Your task to perform on an android device: Add logitech g pro to the cart on ebay.com Image 0: 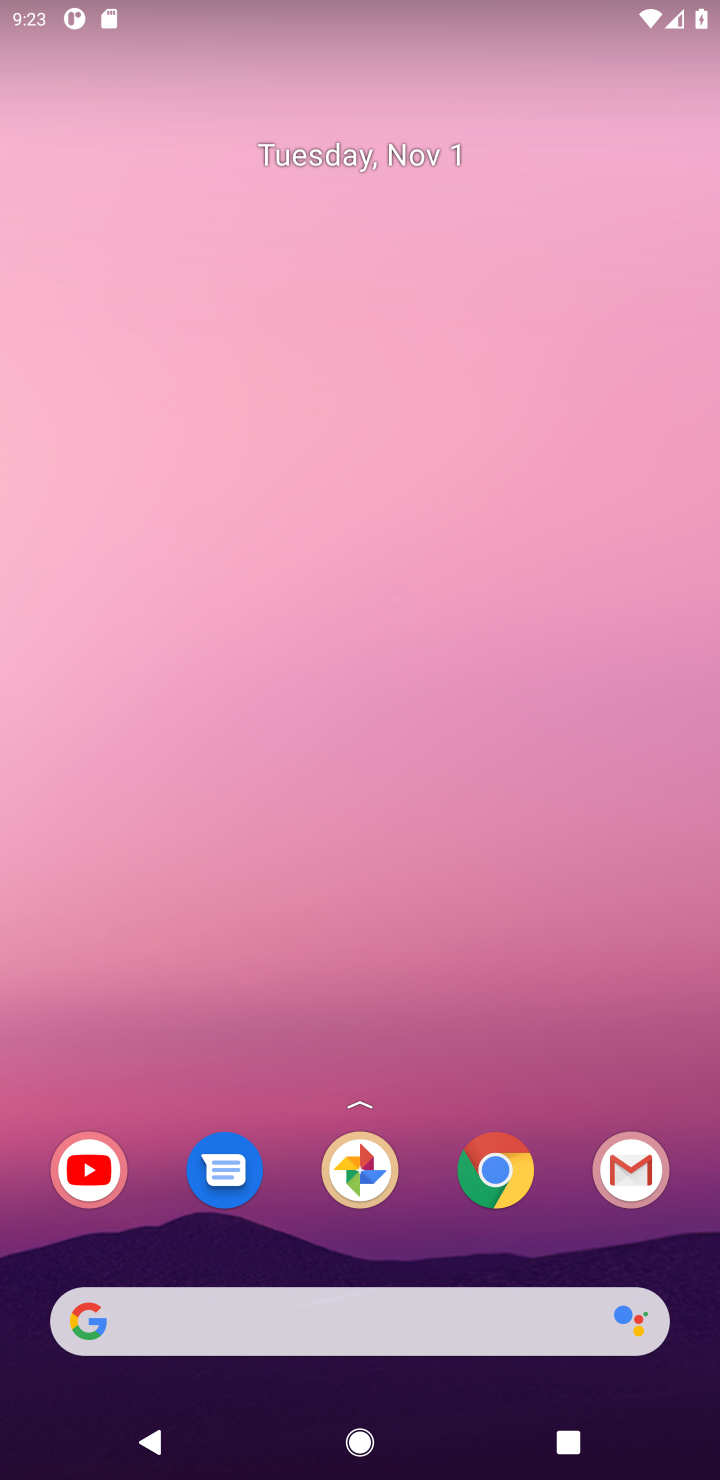
Step 0: click (487, 1194)
Your task to perform on an android device: Add logitech g pro to the cart on ebay.com Image 1: 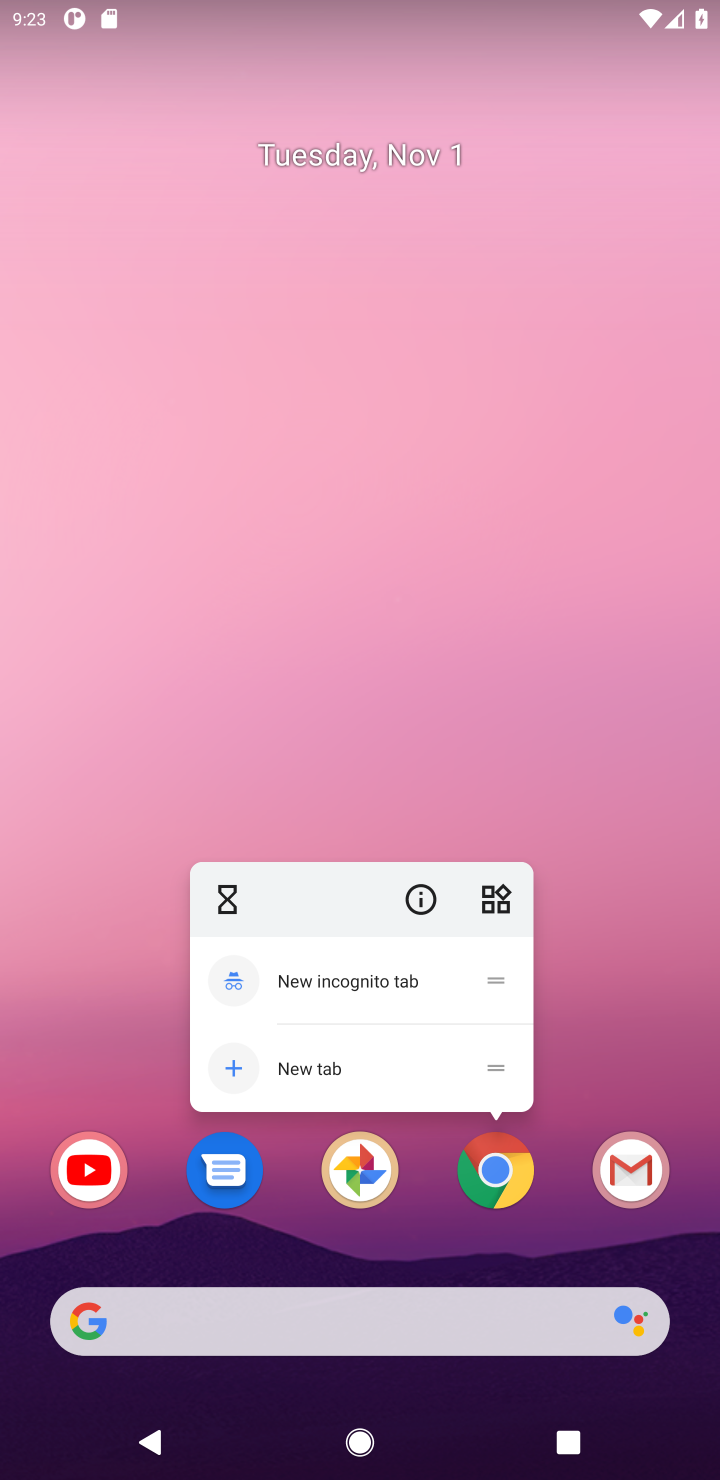
Step 1: click (513, 1196)
Your task to perform on an android device: Add logitech g pro to the cart on ebay.com Image 2: 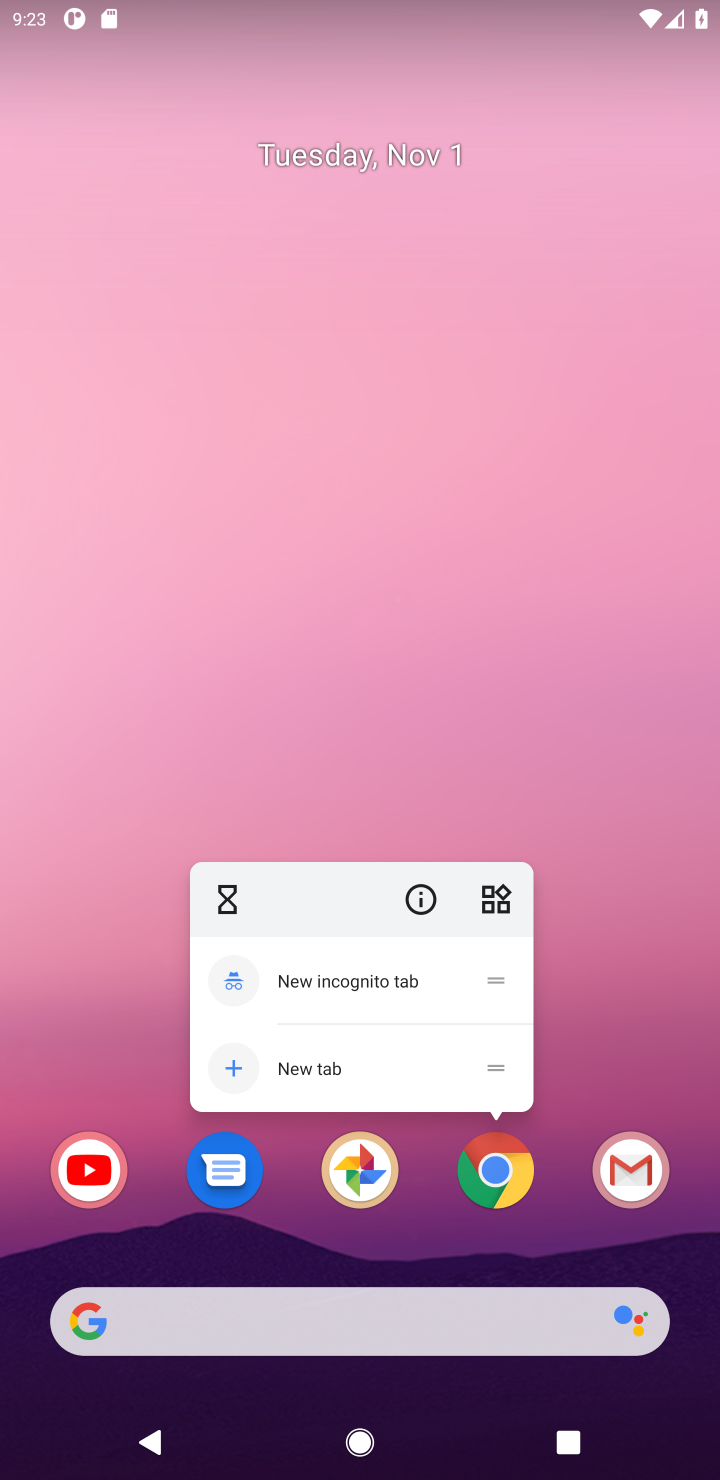
Step 2: click (496, 1190)
Your task to perform on an android device: Add logitech g pro to the cart on ebay.com Image 3: 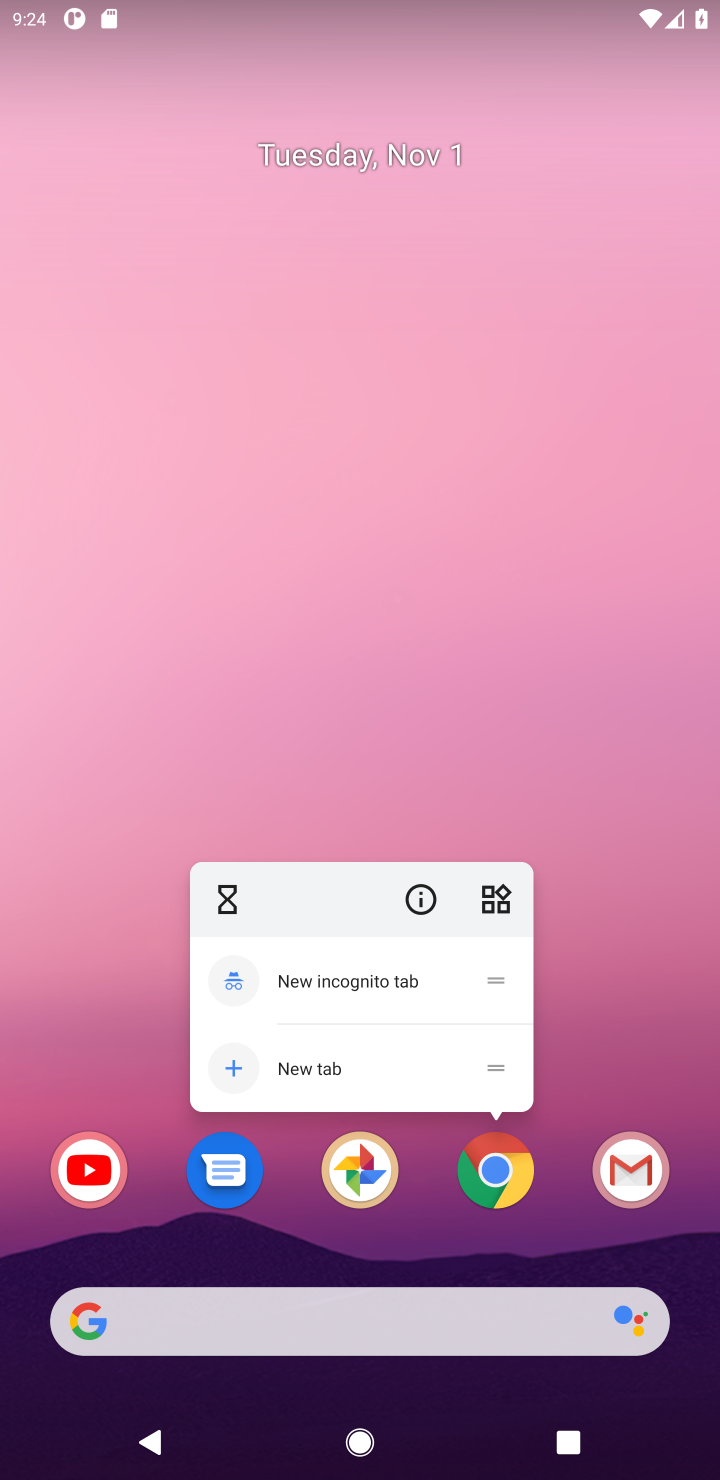
Step 3: click (497, 1172)
Your task to perform on an android device: Add logitech g pro to the cart on ebay.com Image 4: 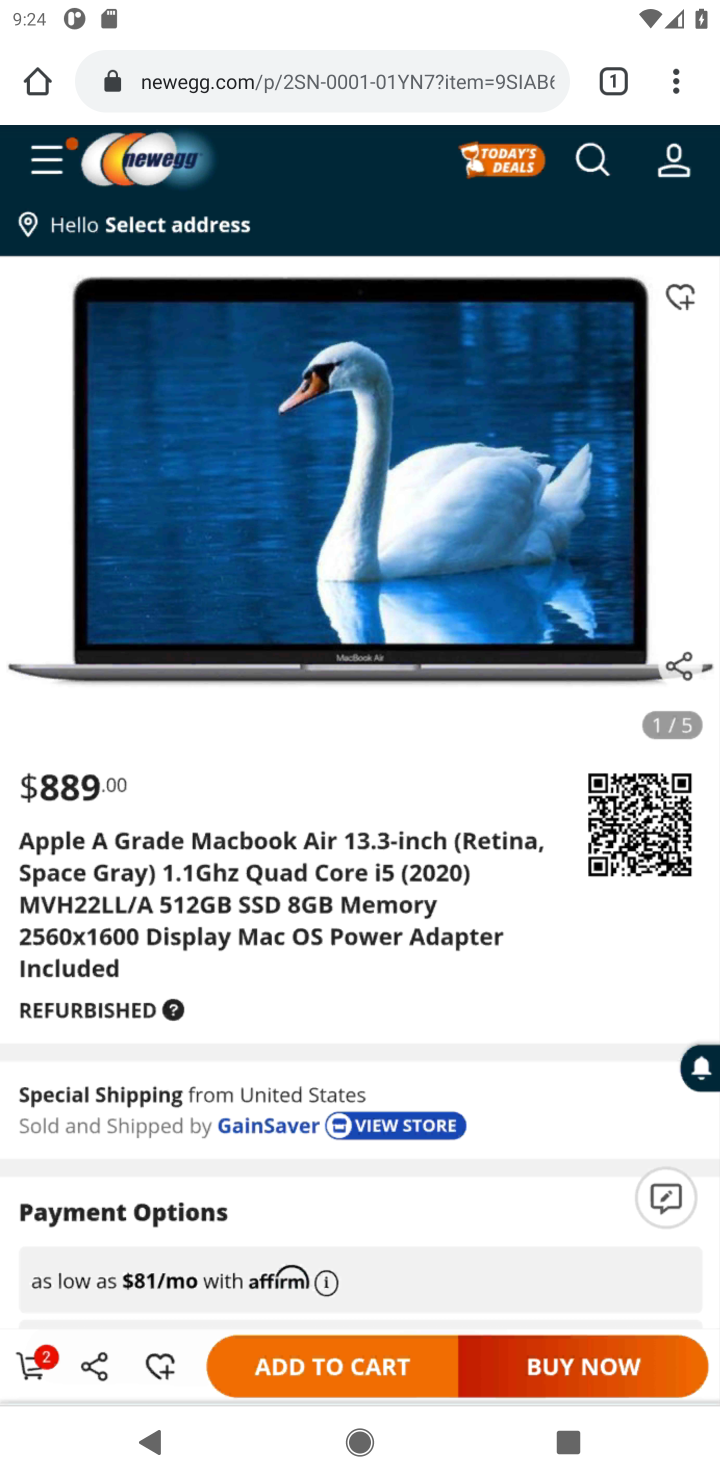
Step 4: click (332, 81)
Your task to perform on an android device: Add logitech g pro to the cart on ebay.com Image 5: 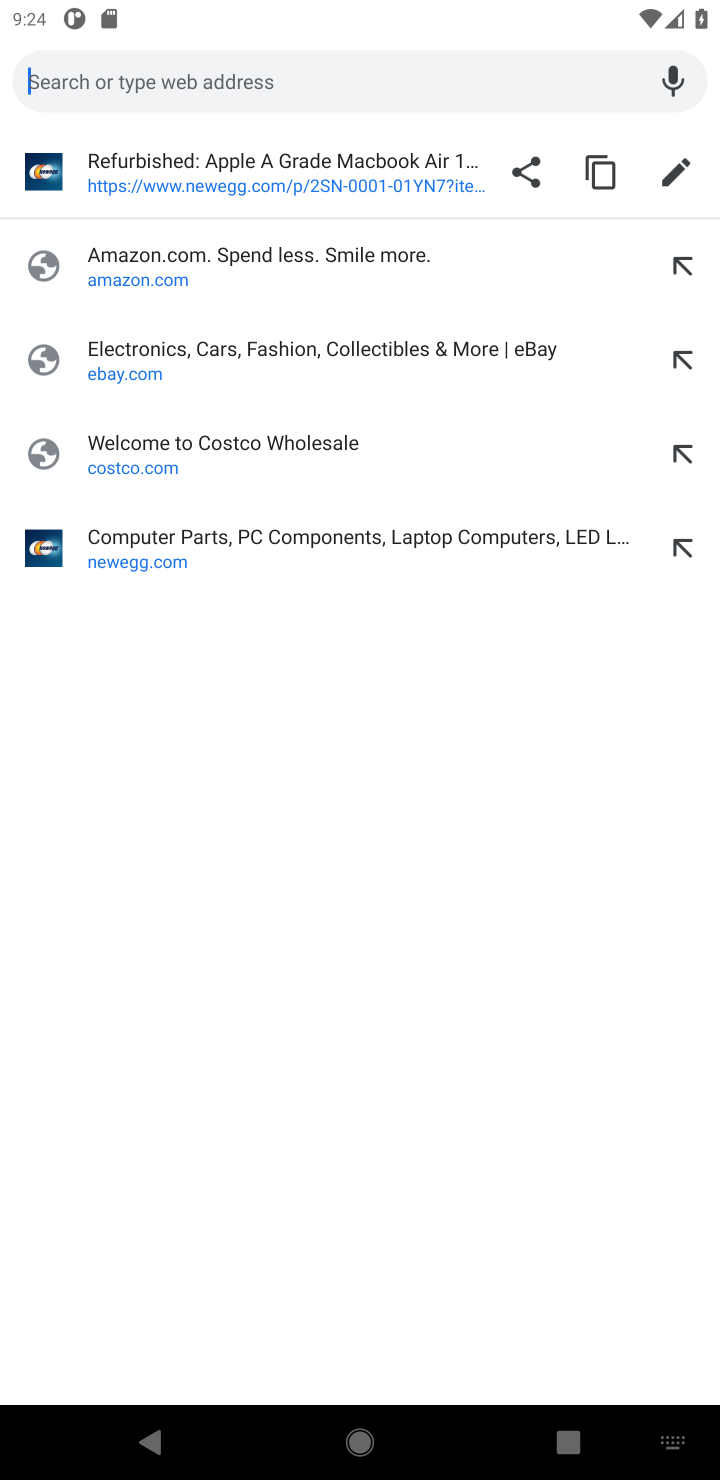
Step 5: type "ebay.com"
Your task to perform on an android device: Add logitech g pro to the cart on ebay.com Image 6: 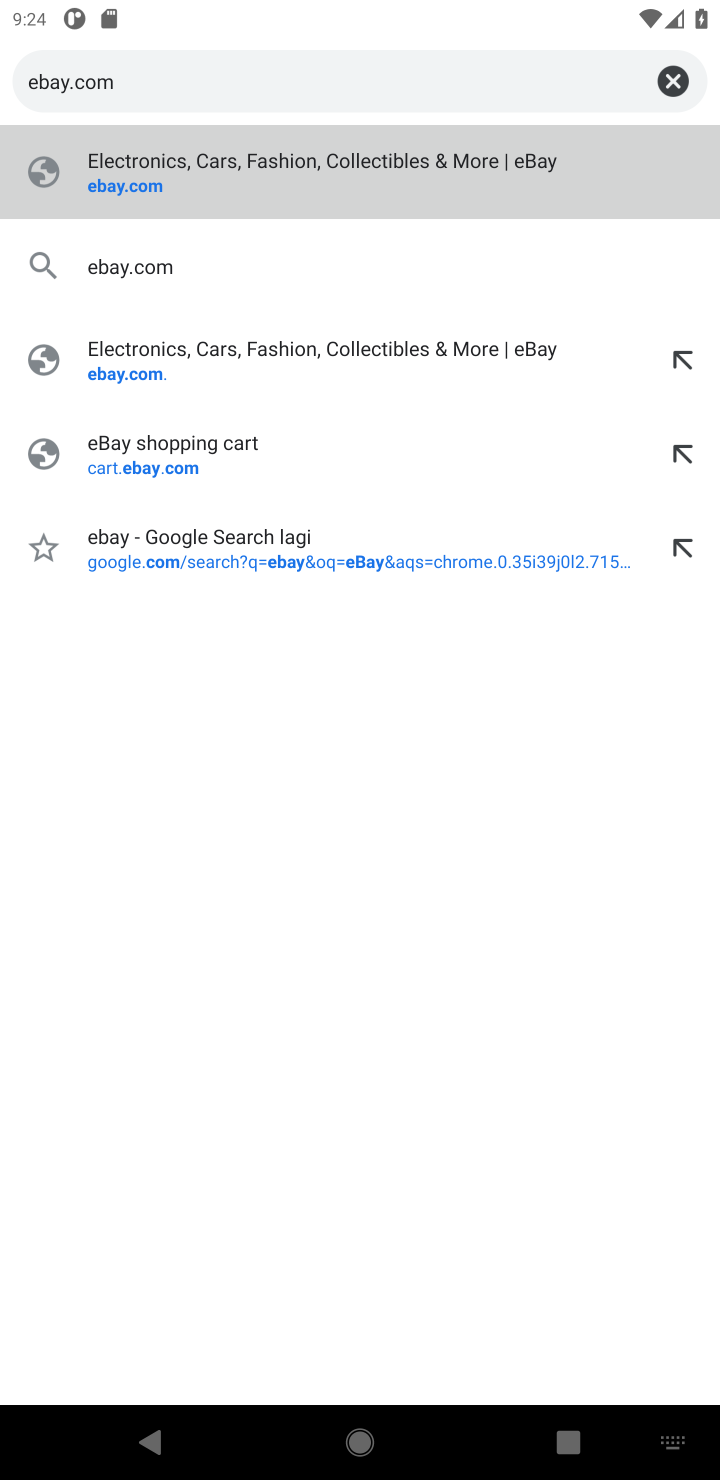
Step 6: type ""
Your task to perform on an android device: Add logitech g pro to the cart on ebay.com Image 7: 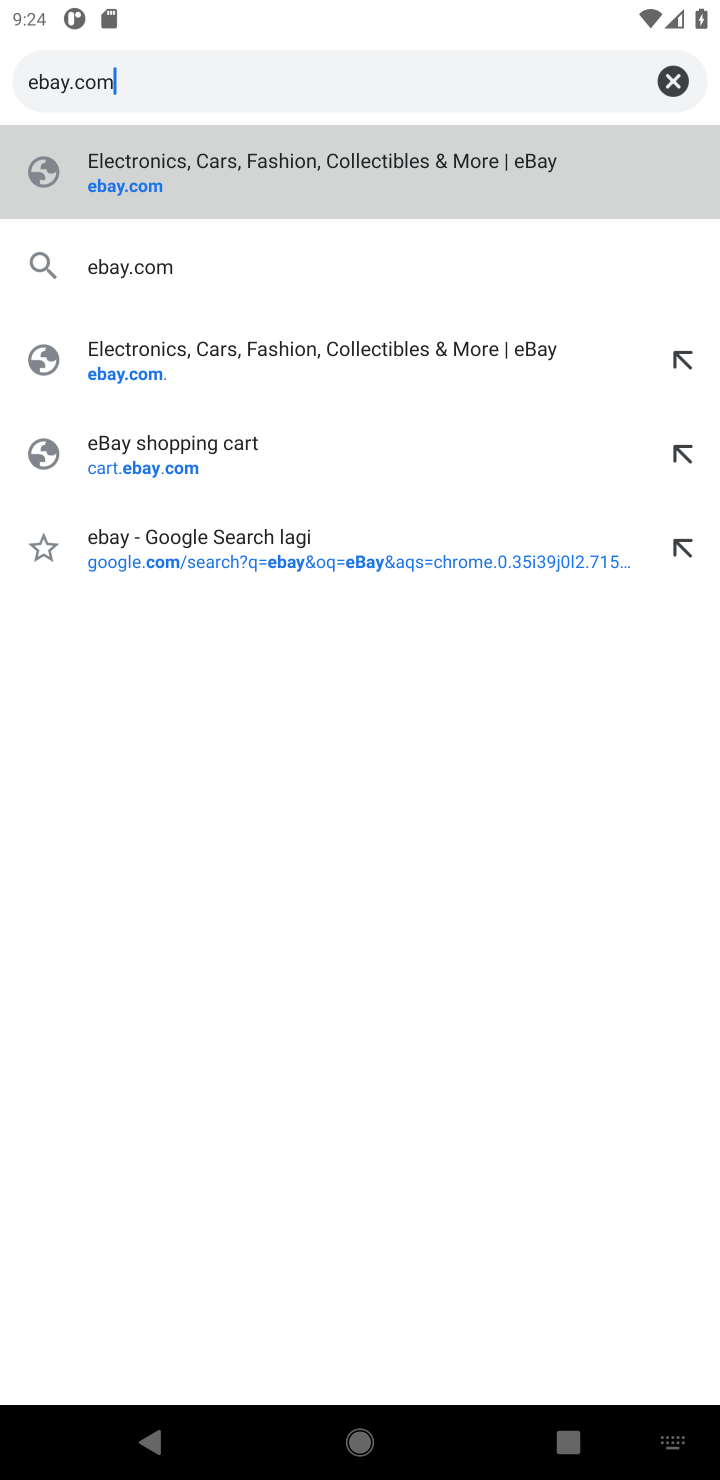
Step 7: press enter
Your task to perform on an android device: Add logitech g pro to the cart on ebay.com Image 8: 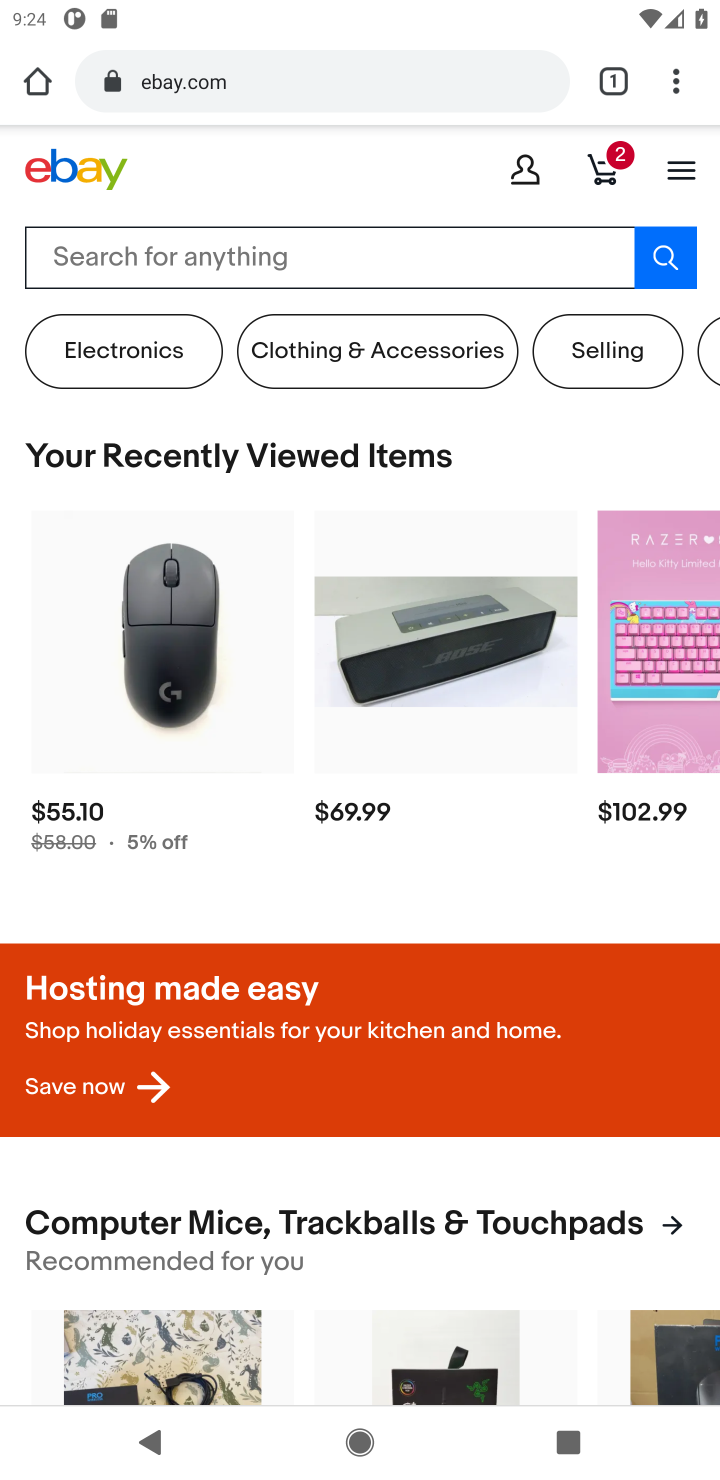
Step 8: click (244, 257)
Your task to perform on an android device: Add logitech g pro to the cart on ebay.com Image 9: 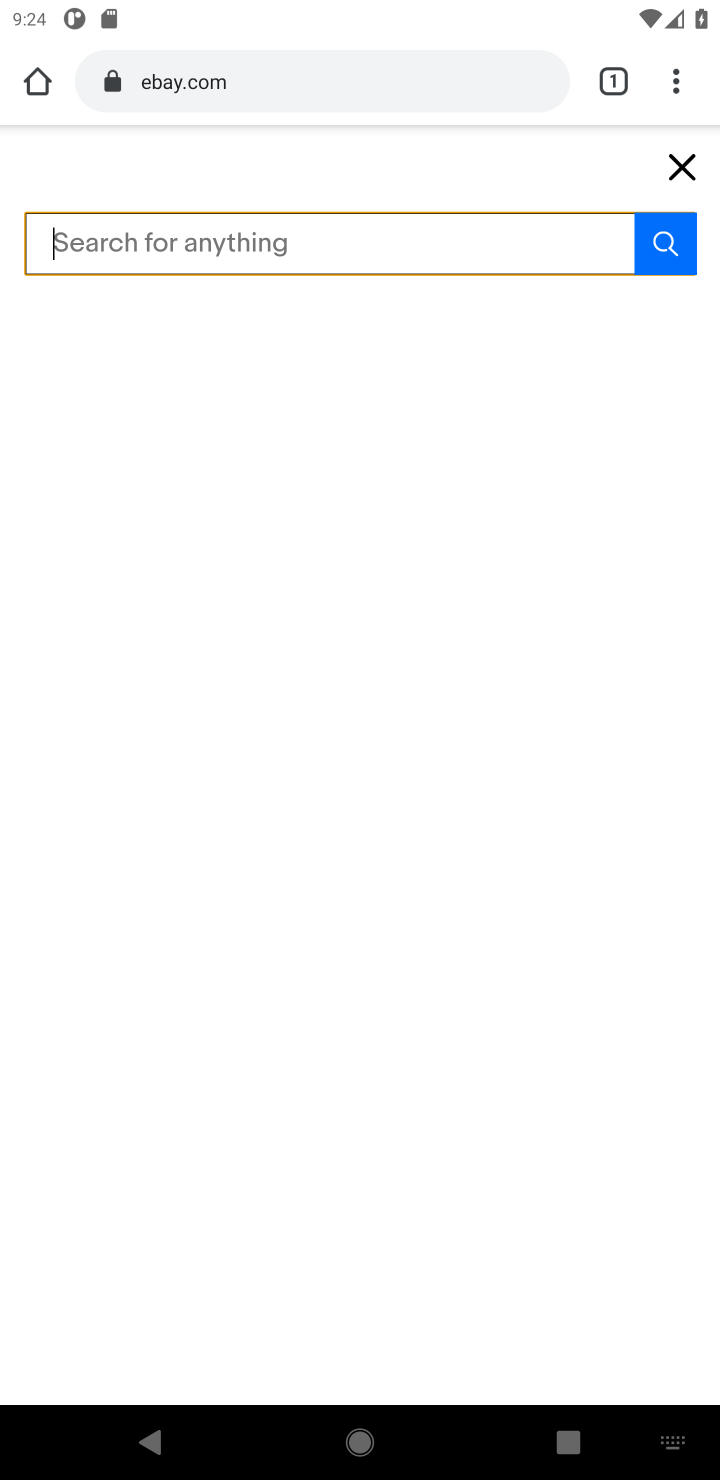
Step 9: type "logitech g pro"
Your task to perform on an android device: Add logitech g pro to the cart on ebay.com Image 10: 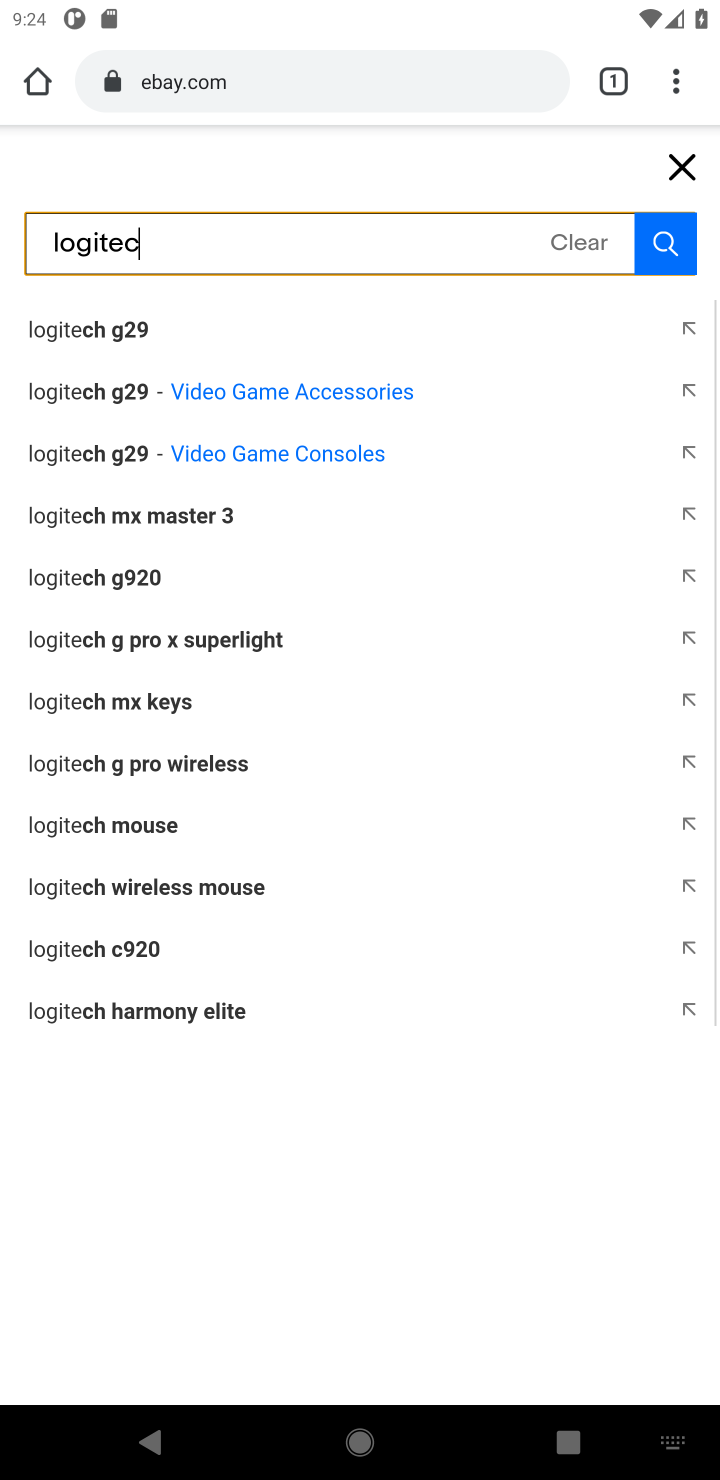
Step 10: type ""
Your task to perform on an android device: Add logitech g pro to the cart on ebay.com Image 11: 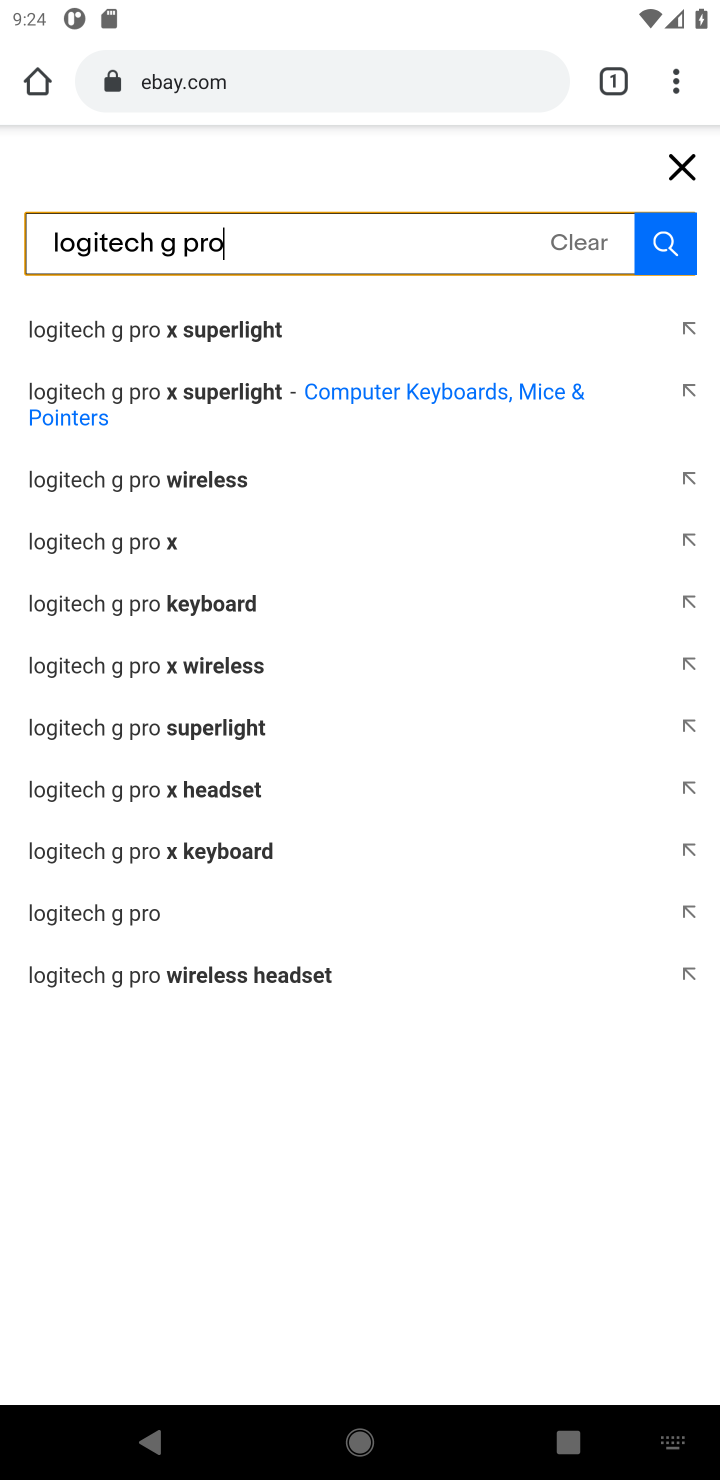
Step 11: click (682, 254)
Your task to perform on an android device: Add logitech g pro to the cart on ebay.com Image 12: 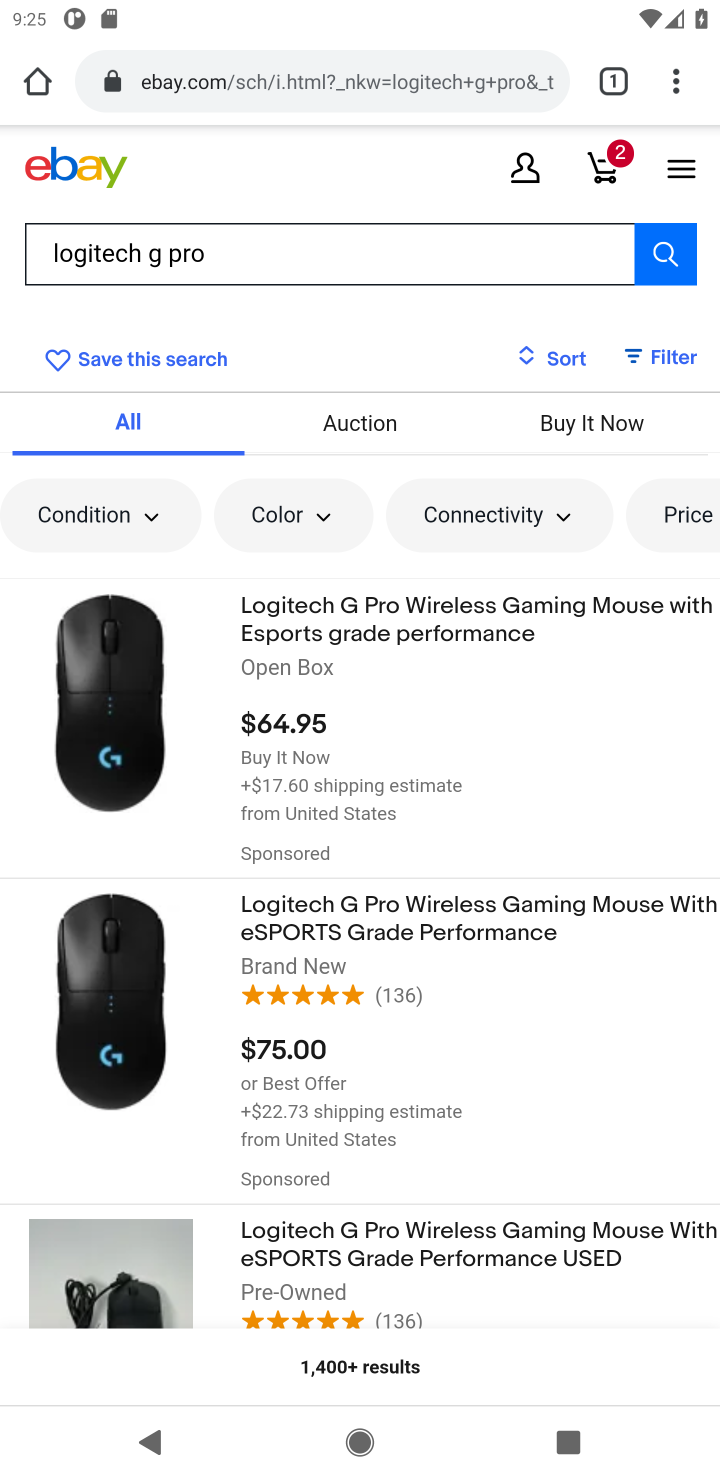
Step 12: click (423, 631)
Your task to perform on an android device: Add logitech g pro to the cart on ebay.com Image 13: 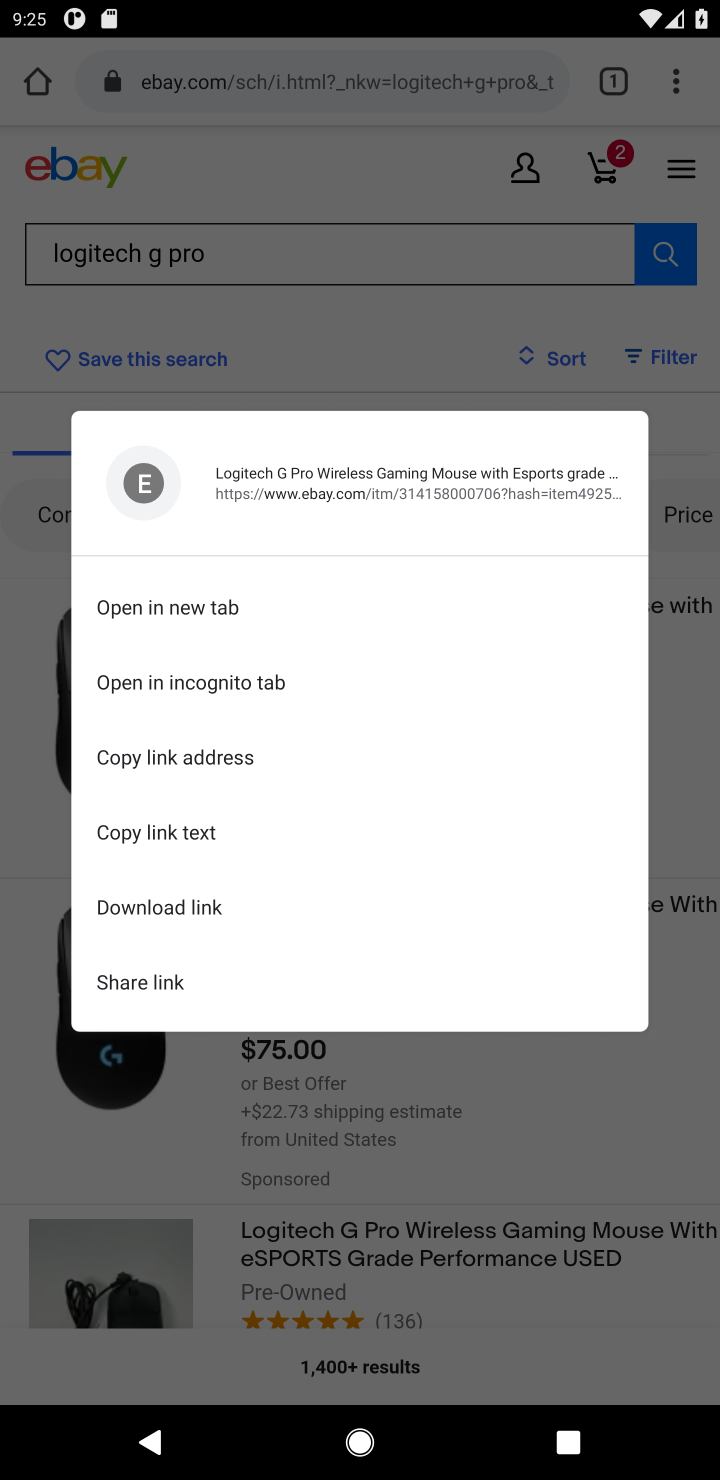
Step 13: click (684, 638)
Your task to perform on an android device: Add logitech g pro to the cart on ebay.com Image 14: 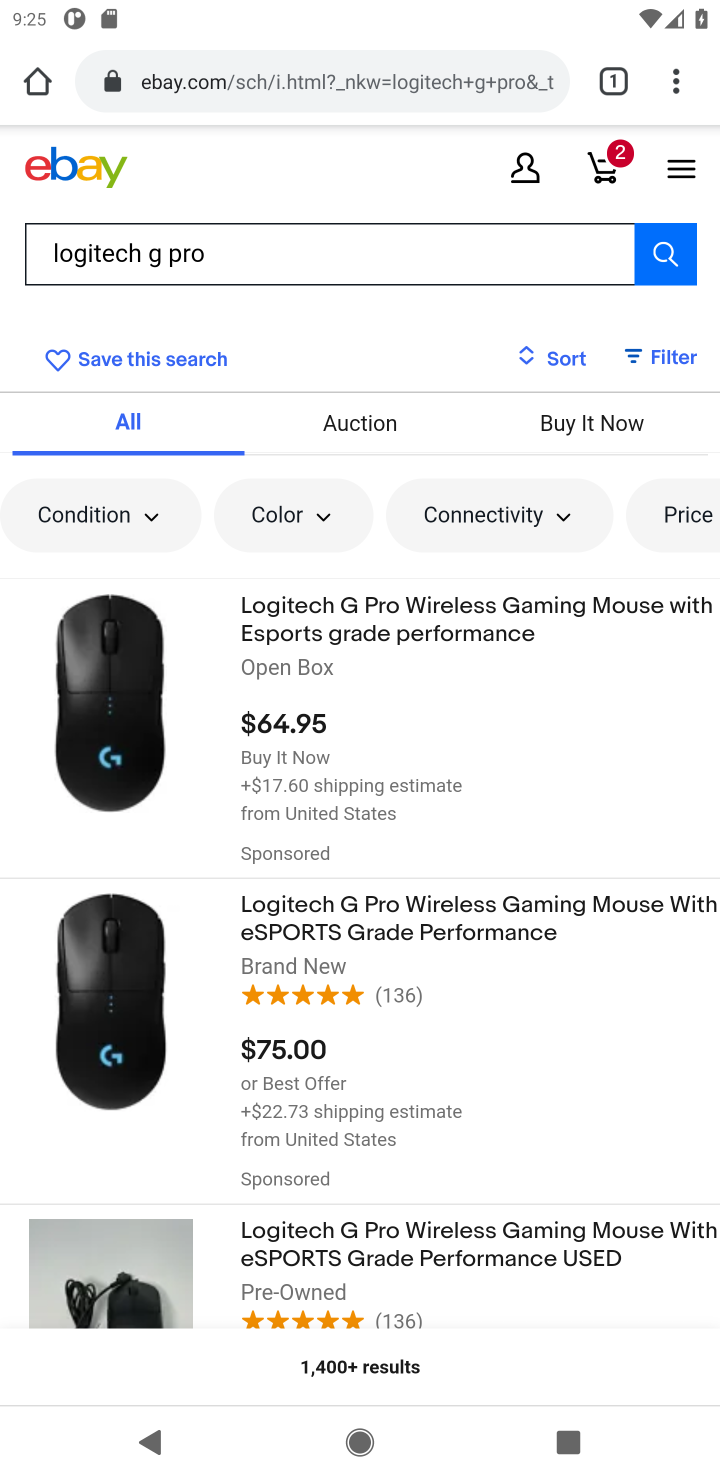
Step 14: click (397, 617)
Your task to perform on an android device: Add logitech g pro to the cart on ebay.com Image 15: 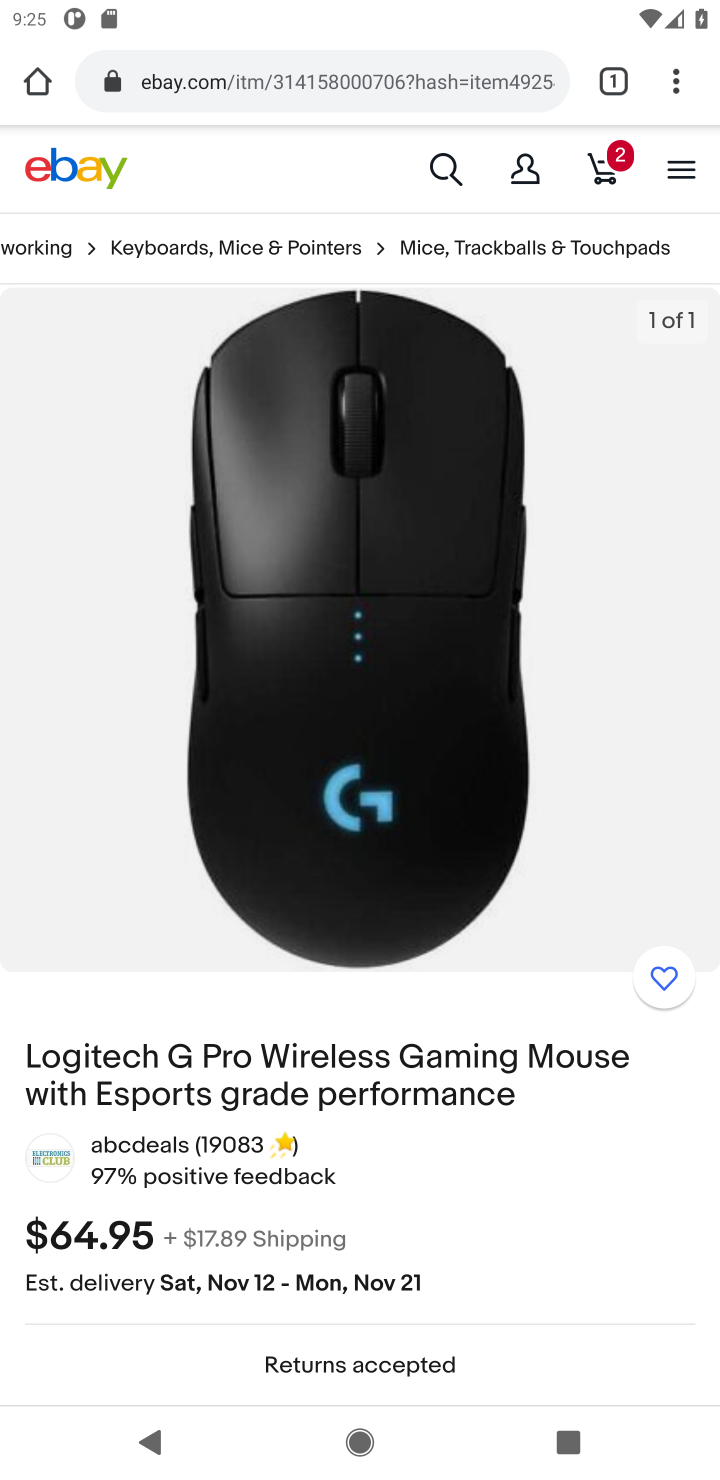
Step 15: drag from (500, 1011) to (462, 465)
Your task to perform on an android device: Add logitech g pro to the cart on ebay.com Image 16: 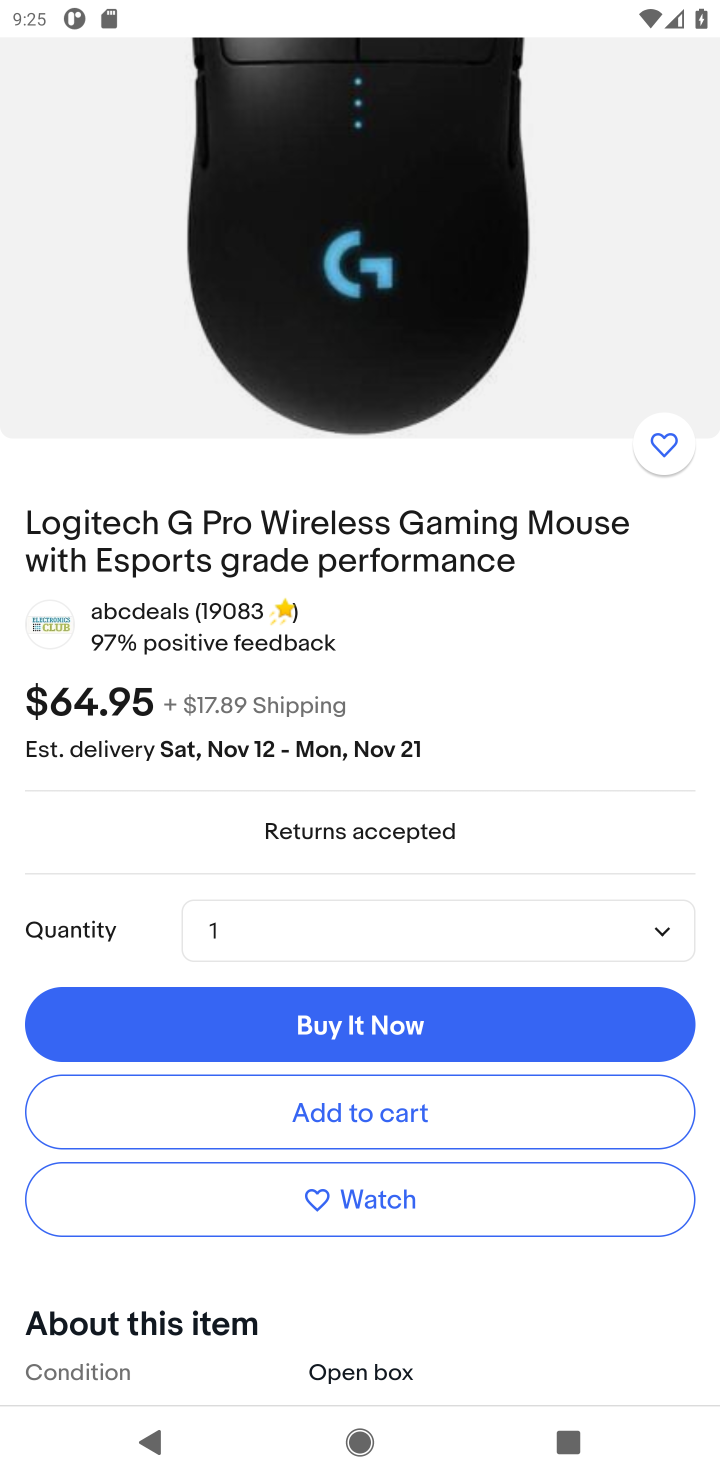
Step 16: click (434, 1113)
Your task to perform on an android device: Add logitech g pro to the cart on ebay.com Image 17: 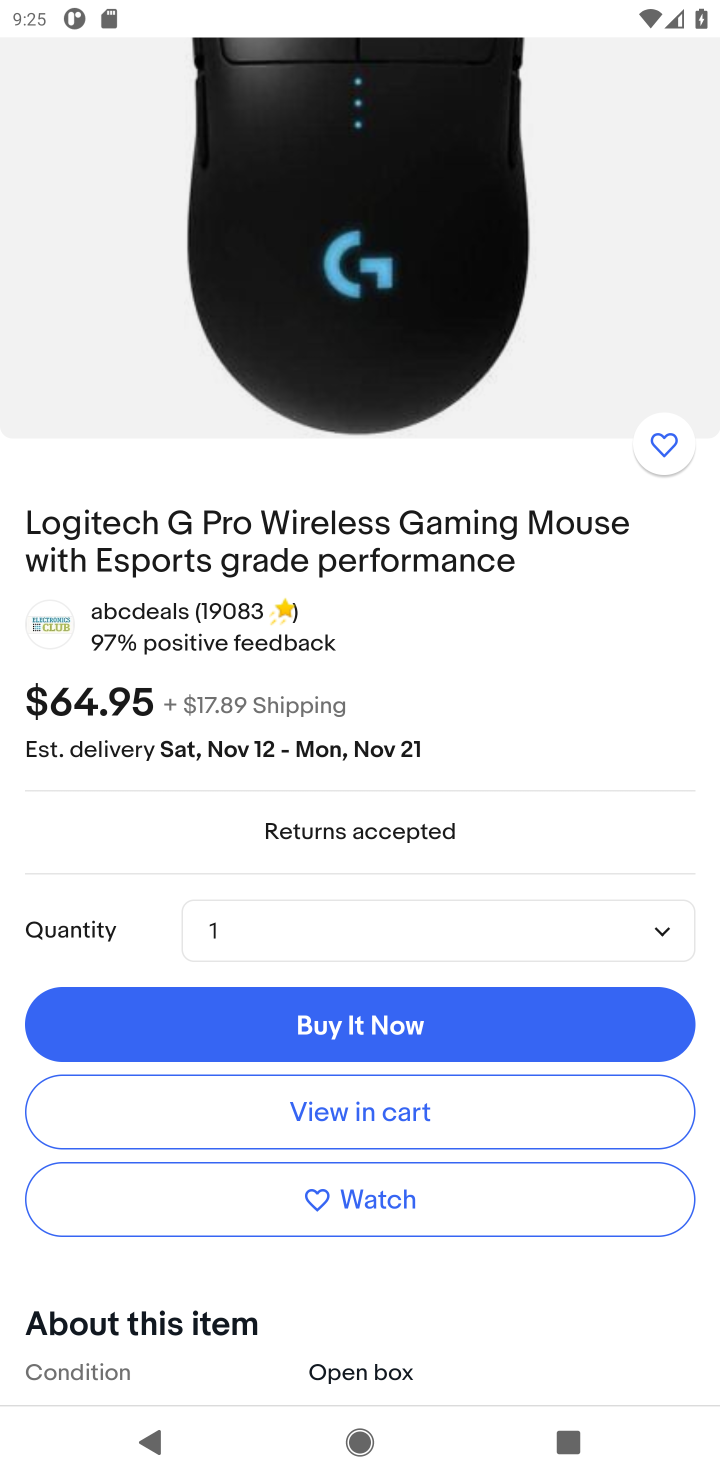
Step 17: task complete